Your task to perform on an android device: Open Google Image 0: 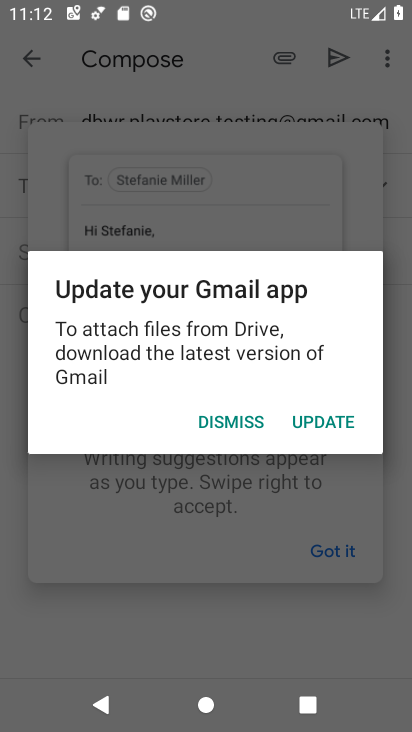
Step 0: press home button
Your task to perform on an android device: Open Google Image 1: 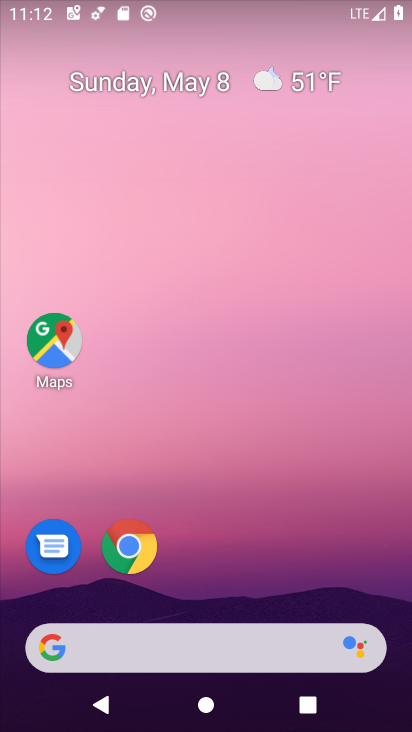
Step 1: click (125, 548)
Your task to perform on an android device: Open Google Image 2: 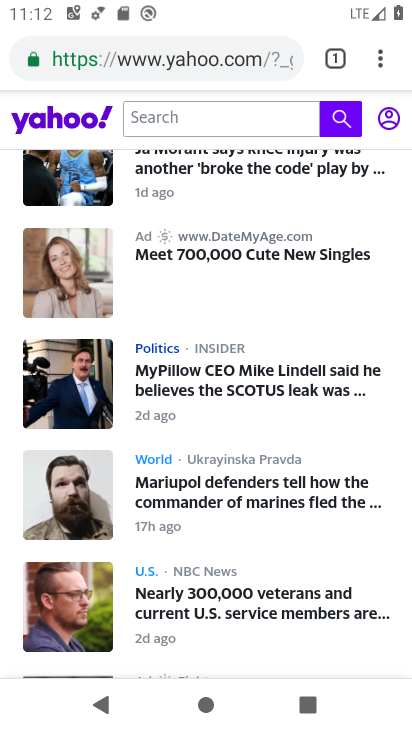
Step 2: click (379, 56)
Your task to perform on an android device: Open Google Image 3: 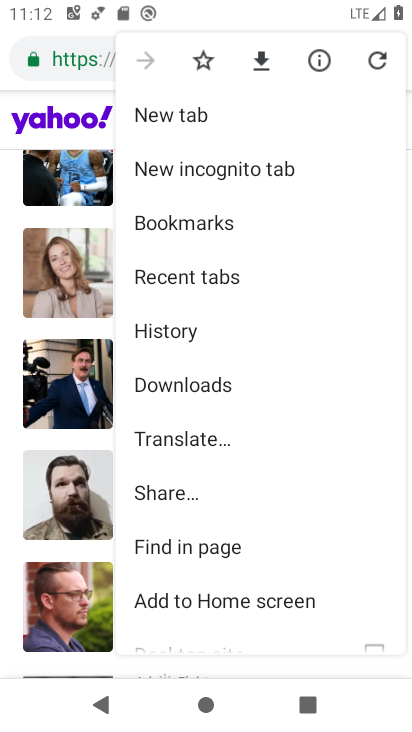
Step 3: task complete